Your task to perform on an android device: remove spam from my inbox in the gmail app Image 0: 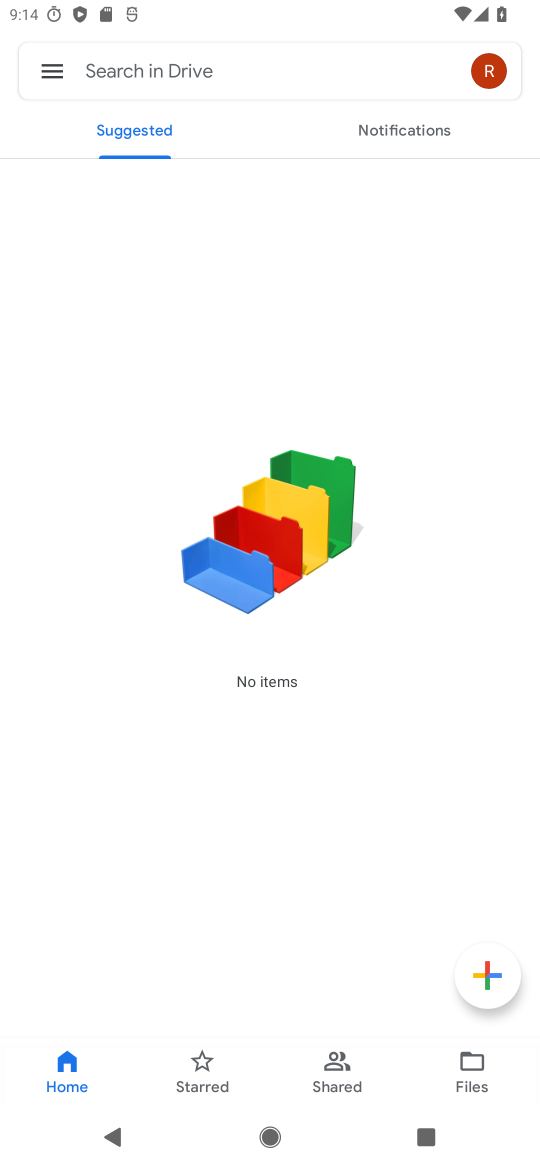
Step 0: press home button
Your task to perform on an android device: remove spam from my inbox in the gmail app Image 1: 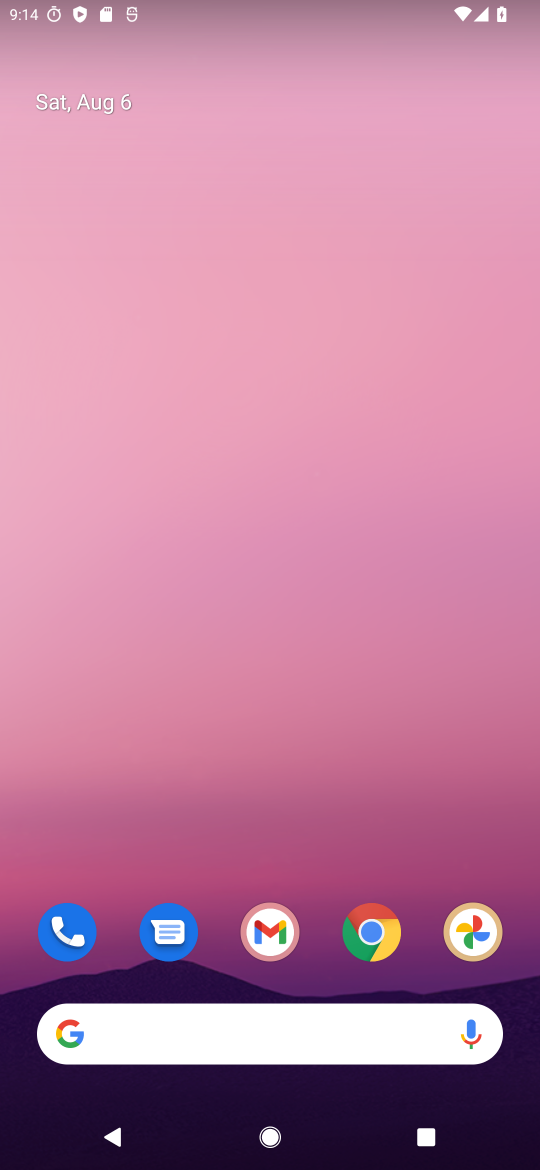
Step 1: drag from (330, 1027) to (310, 296)
Your task to perform on an android device: remove spam from my inbox in the gmail app Image 2: 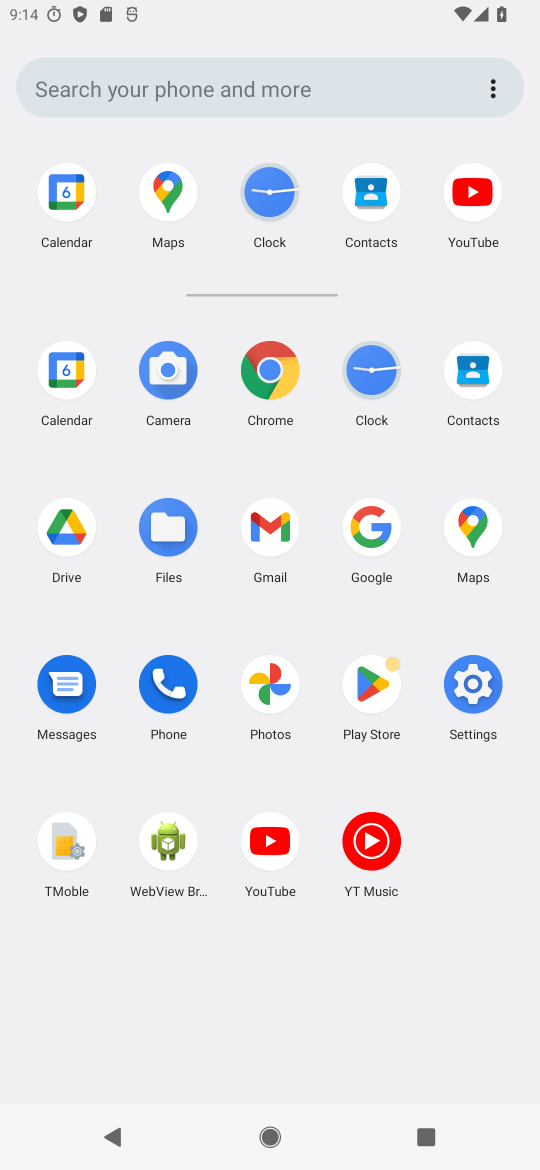
Step 2: click (273, 528)
Your task to perform on an android device: remove spam from my inbox in the gmail app Image 3: 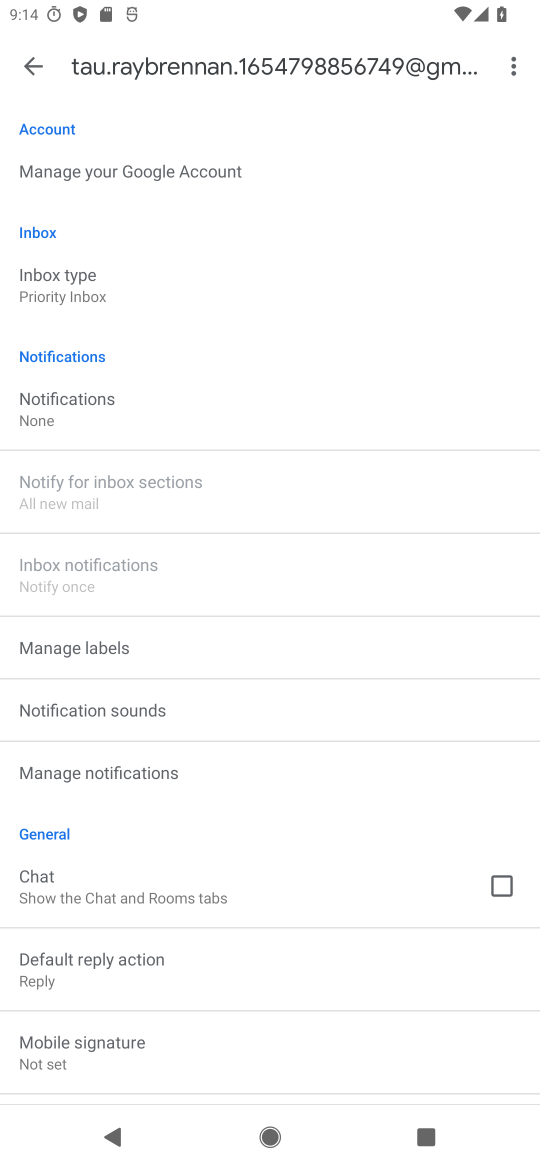
Step 3: click (35, 65)
Your task to perform on an android device: remove spam from my inbox in the gmail app Image 4: 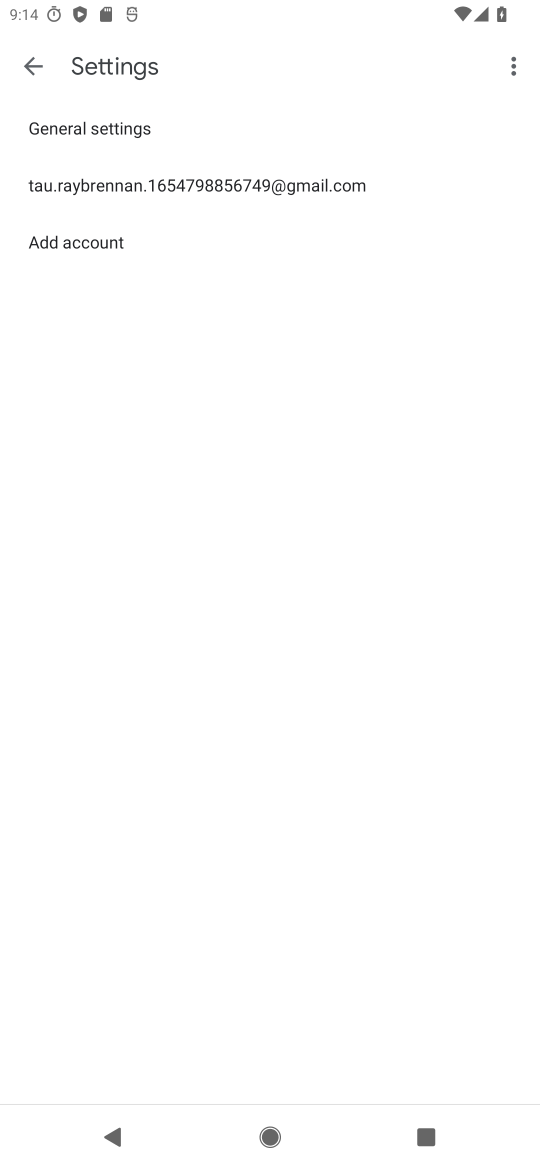
Step 4: click (35, 65)
Your task to perform on an android device: remove spam from my inbox in the gmail app Image 5: 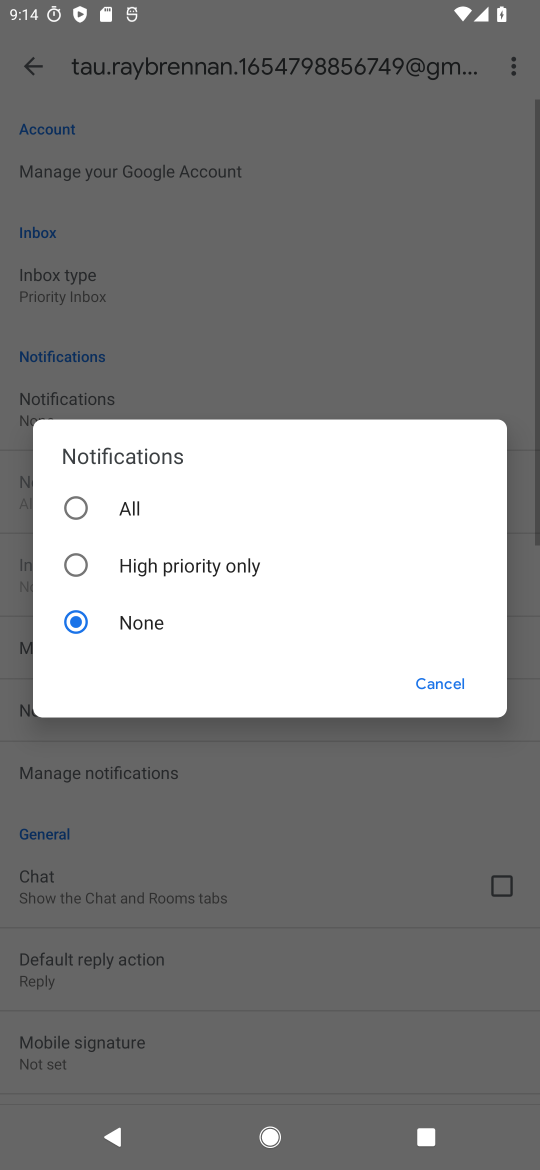
Step 5: click (35, 67)
Your task to perform on an android device: remove spam from my inbox in the gmail app Image 6: 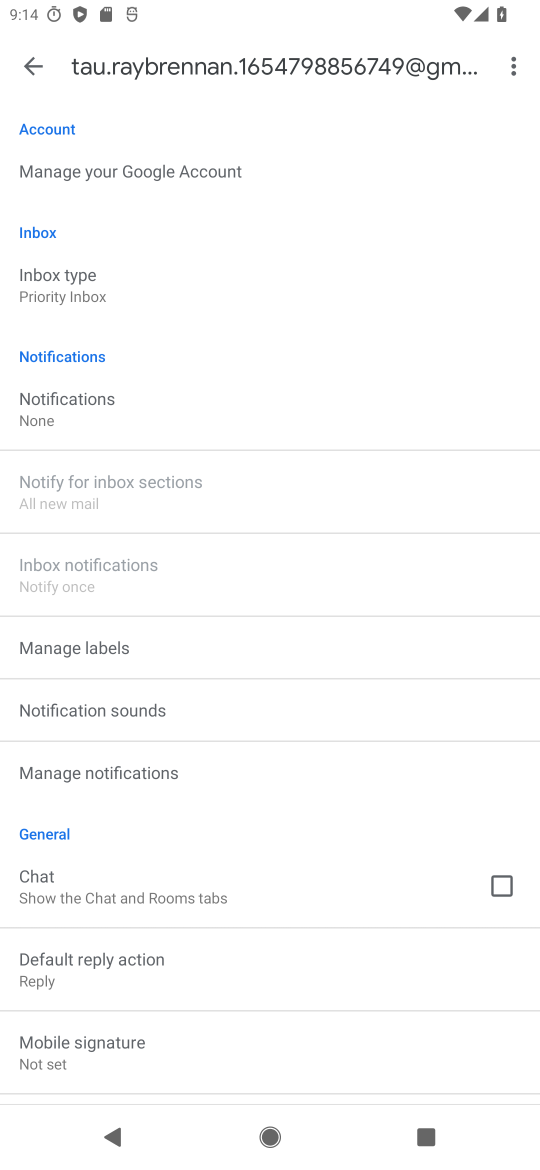
Step 6: click (39, 66)
Your task to perform on an android device: remove spam from my inbox in the gmail app Image 7: 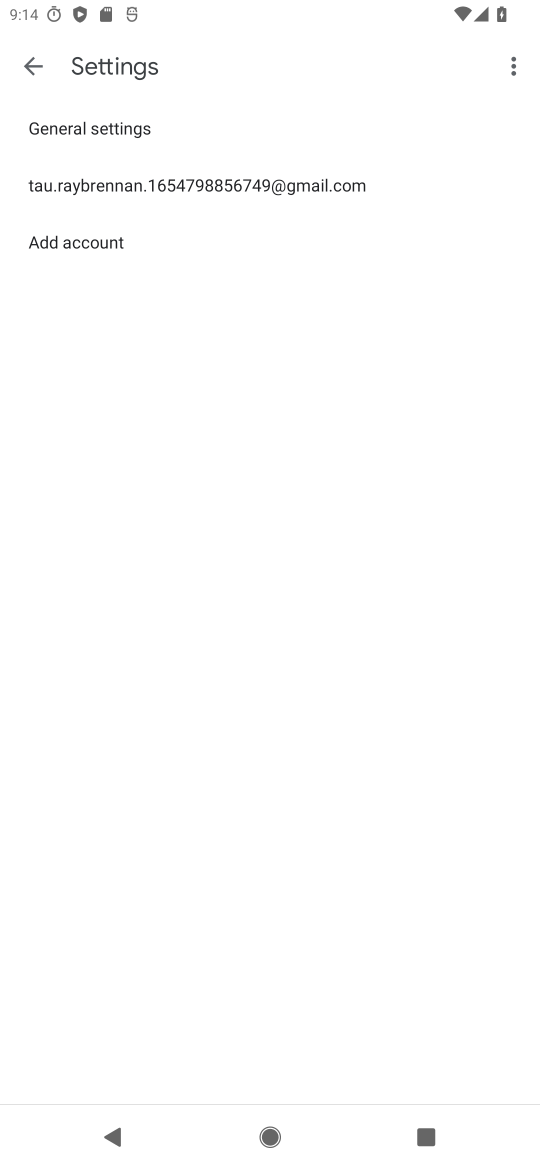
Step 7: click (38, 64)
Your task to perform on an android device: remove spam from my inbox in the gmail app Image 8: 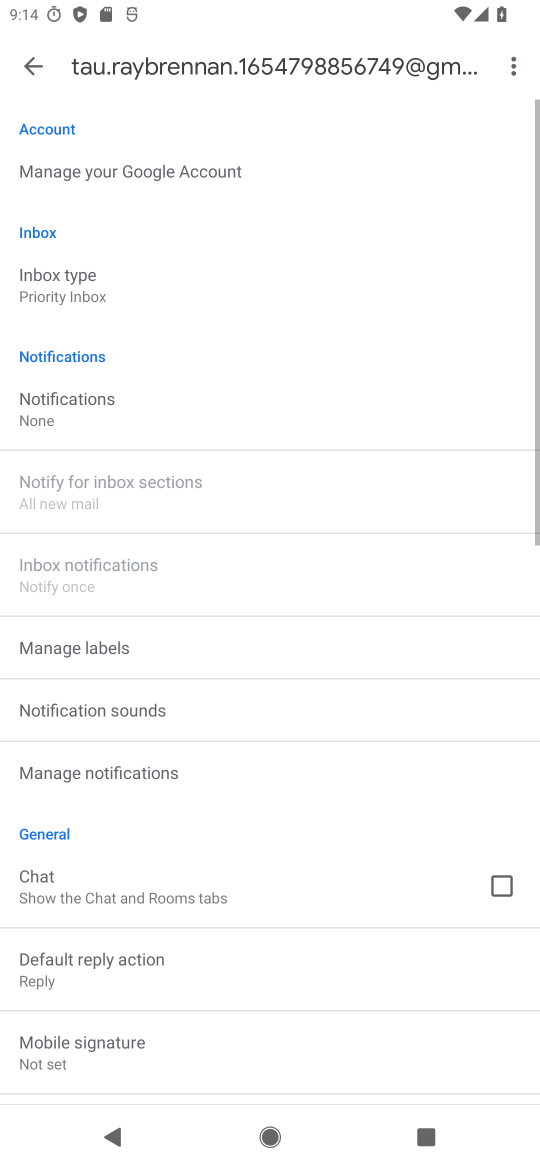
Step 8: click (29, 63)
Your task to perform on an android device: remove spam from my inbox in the gmail app Image 9: 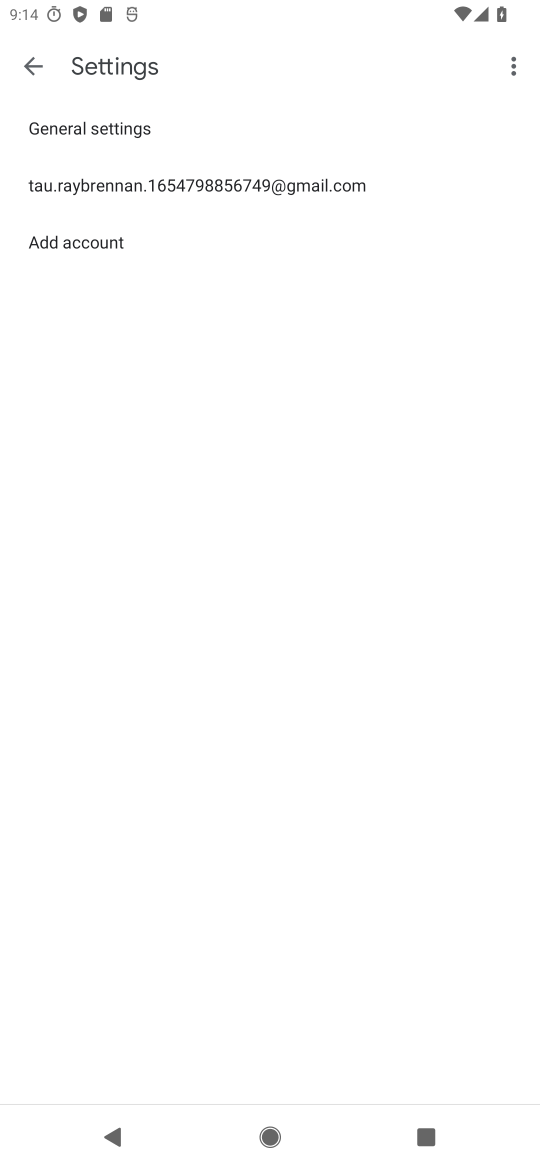
Step 9: click (28, 65)
Your task to perform on an android device: remove spam from my inbox in the gmail app Image 10: 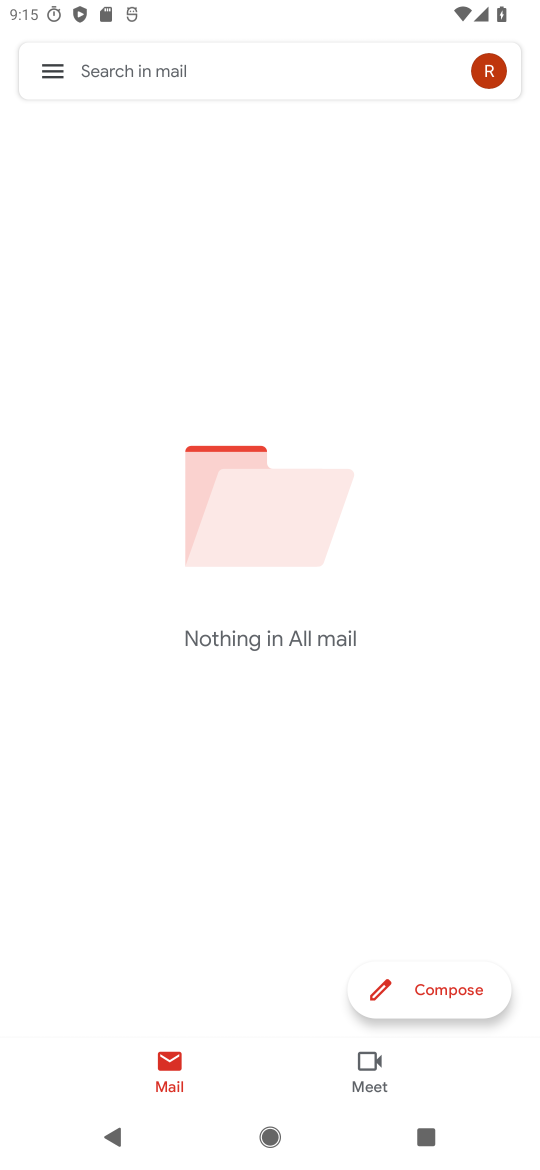
Step 10: click (59, 66)
Your task to perform on an android device: remove spam from my inbox in the gmail app Image 11: 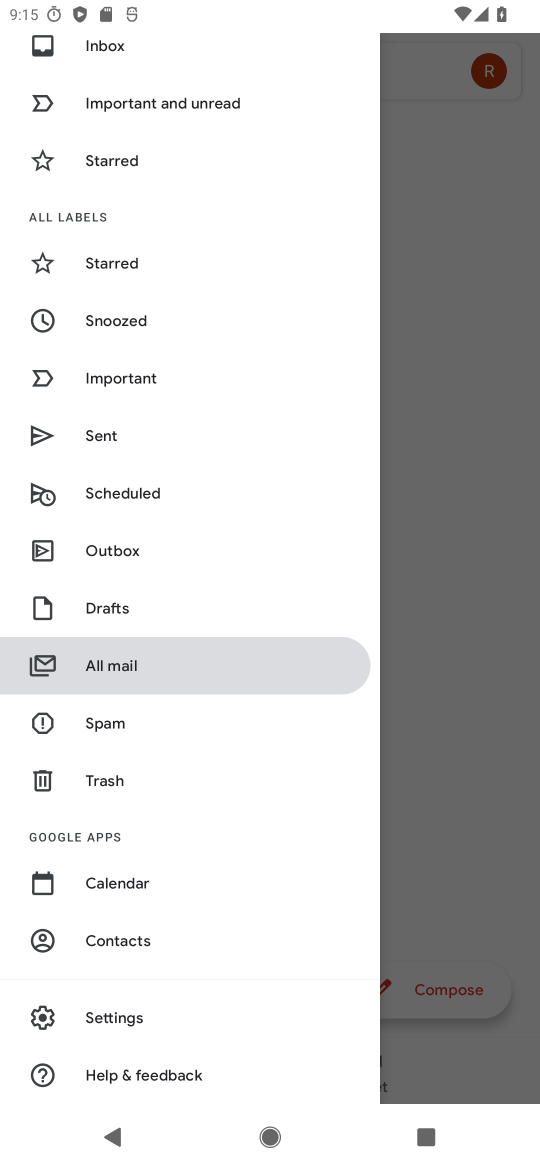
Step 11: click (122, 718)
Your task to perform on an android device: remove spam from my inbox in the gmail app Image 12: 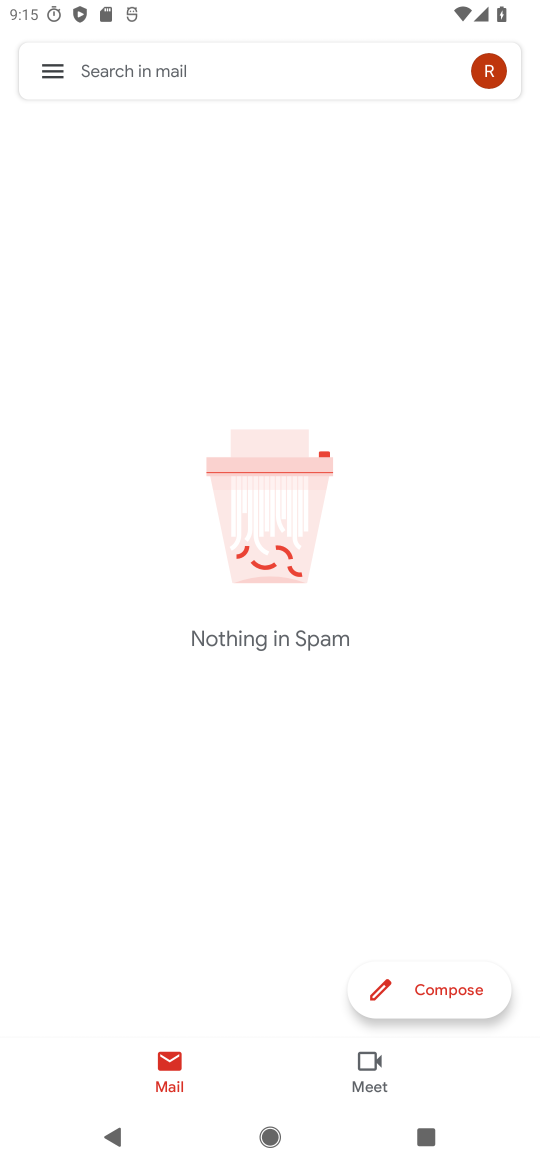
Step 12: task complete